Your task to perform on an android device: toggle pop-ups in chrome Image 0: 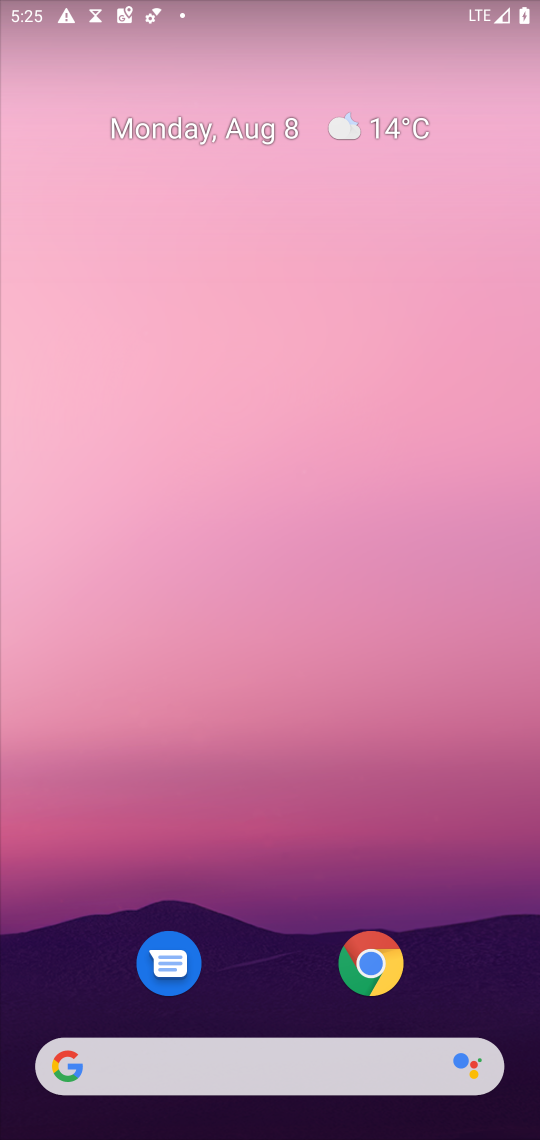
Step 0: click (374, 974)
Your task to perform on an android device: toggle pop-ups in chrome Image 1: 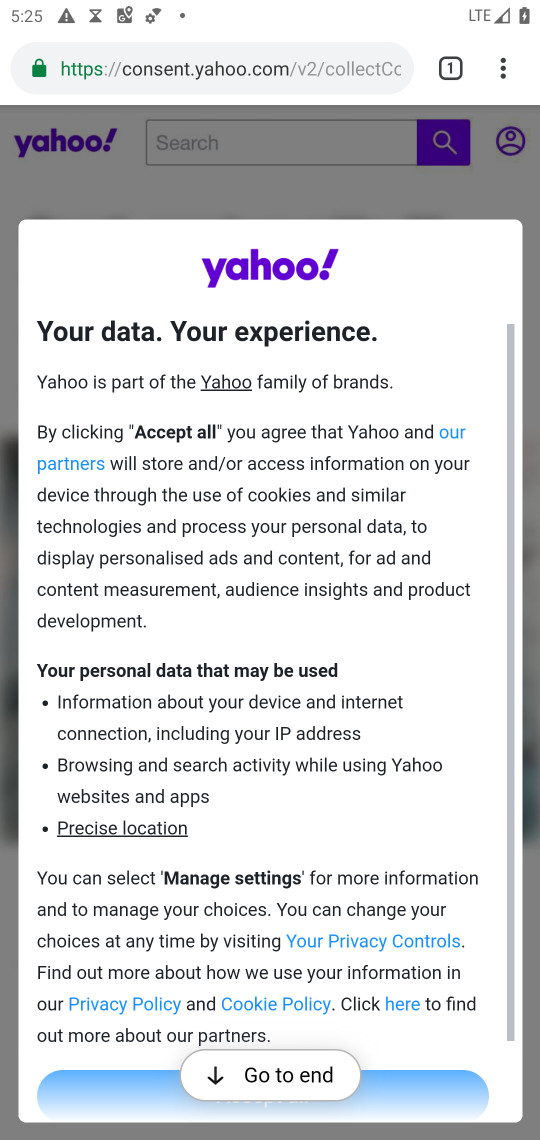
Step 1: click (494, 73)
Your task to perform on an android device: toggle pop-ups in chrome Image 2: 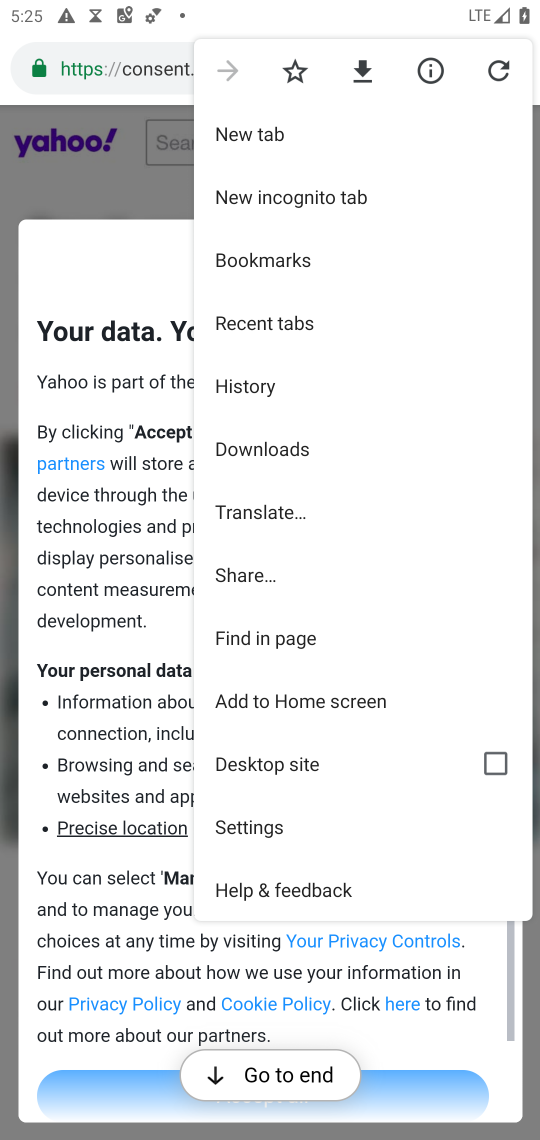
Step 2: click (323, 831)
Your task to perform on an android device: toggle pop-ups in chrome Image 3: 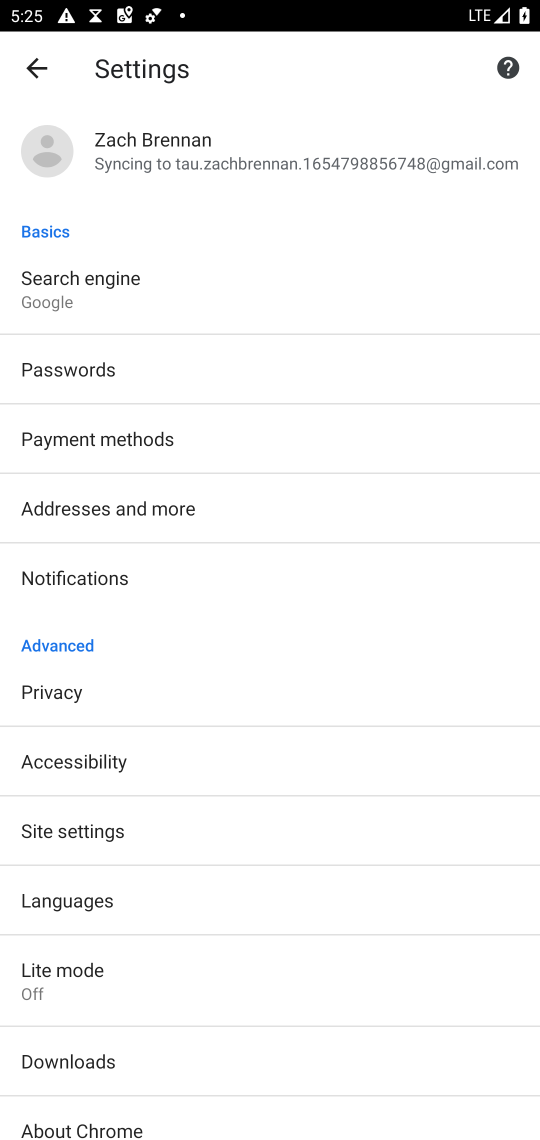
Step 3: click (171, 830)
Your task to perform on an android device: toggle pop-ups in chrome Image 4: 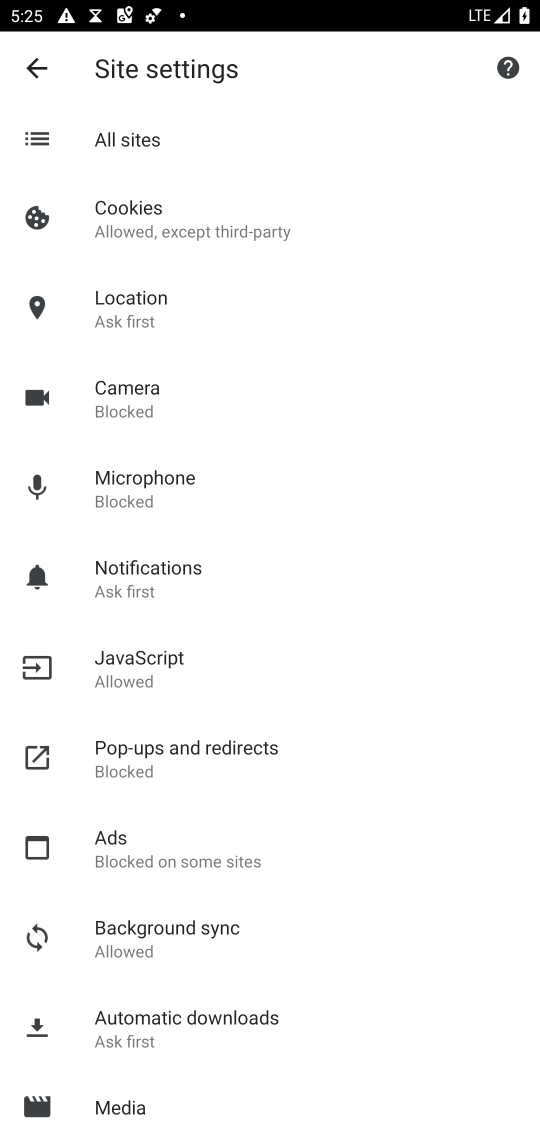
Step 4: click (196, 767)
Your task to perform on an android device: toggle pop-ups in chrome Image 5: 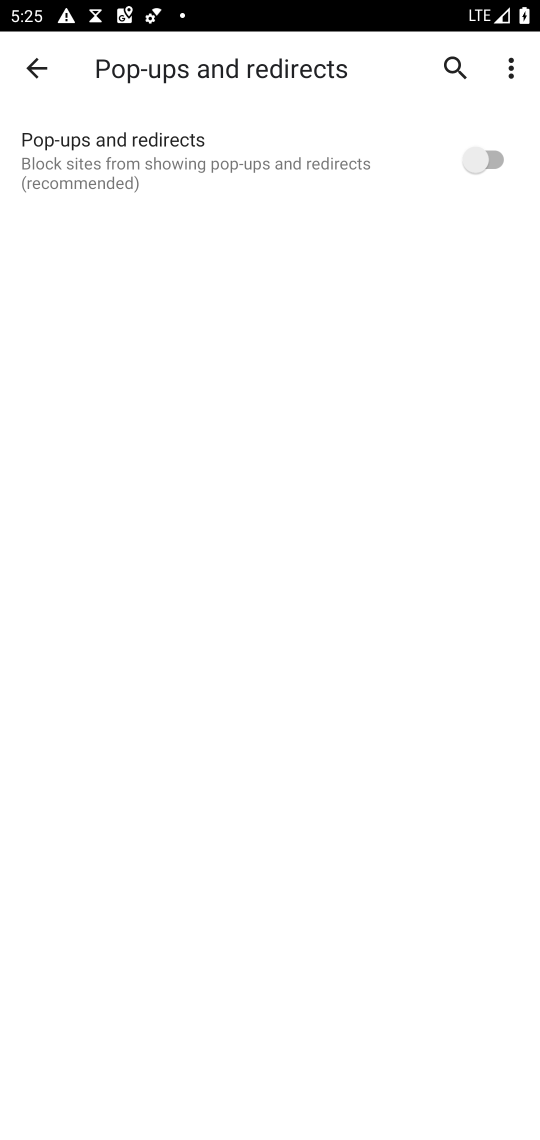
Step 5: click (495, 151)
Your task to perform on an android device: toggle pop-ups in chrome Image 6: 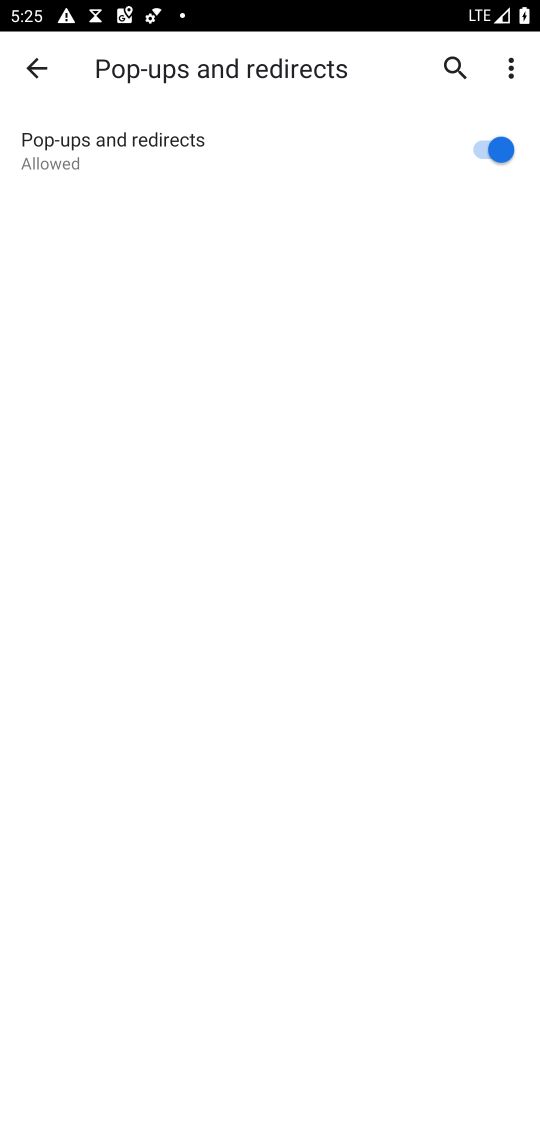
Step 6: task complete